Your task to perform on an android device: Show me popular videos on Youtube Image 0: 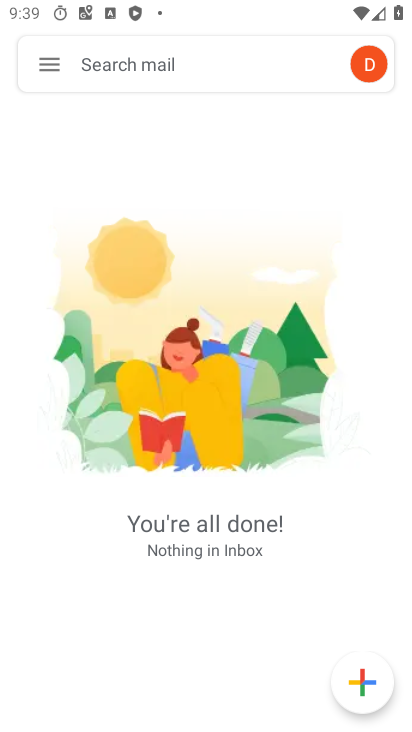
Step 0: press home button
Your task to perform on an android device: Show me popular videos on Youtube Image 1: 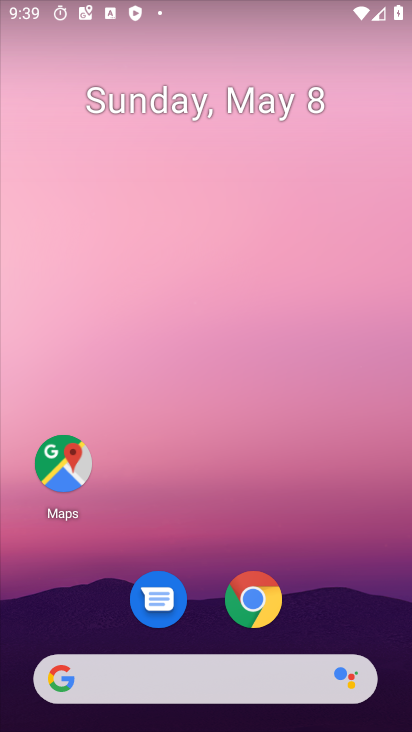
Step 1: drag from (267, 617) to (221, 99)
Your task to perform on an android device: Show me popular videos on Youtube Image 2: 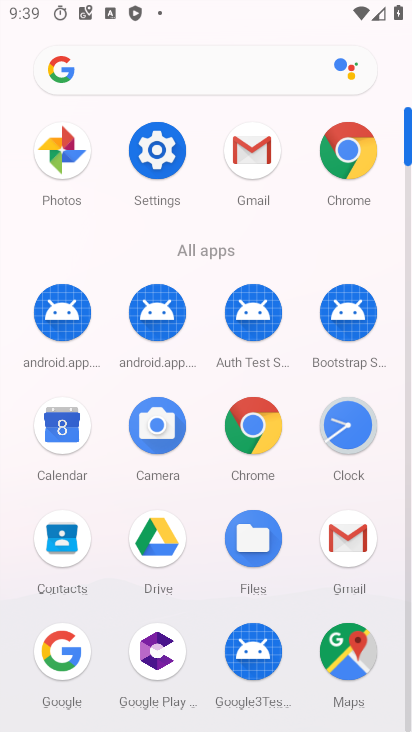
Step 2: drag from (273, 485) to (284, 114)
Your task to perform on an android device: Show me popular videos on Youtube Image 3: 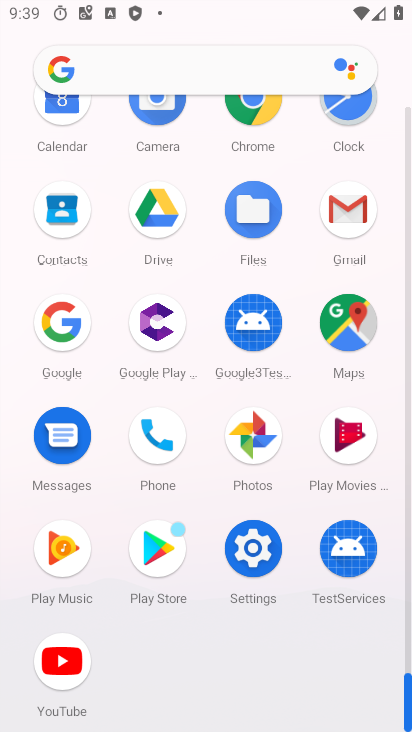
Step 3: click (64, 669)
Your task to perform on an android device: Show me popular videos on Youtube Image 4: 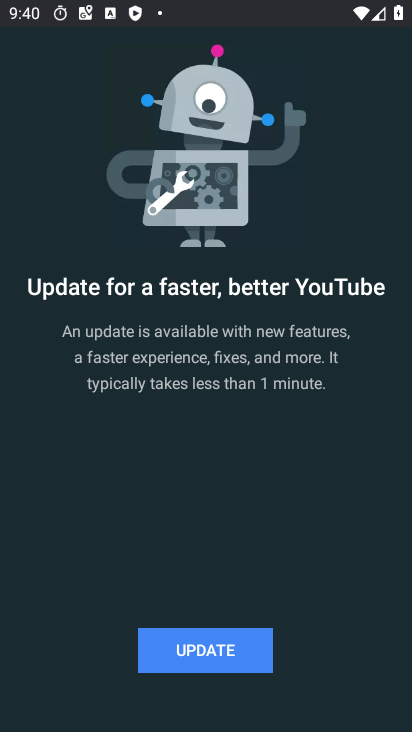
Step 4: task complete